Your task to perform on an android device: Open Google Maps Image 0: 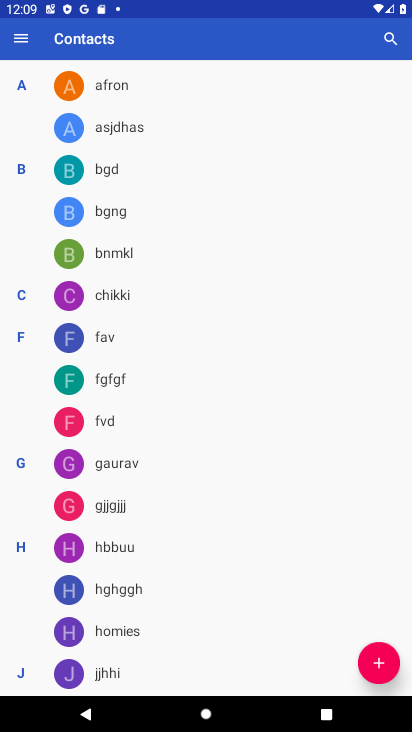
Step 0: press home button
Your task to perform on an android device: Open Google Maps Image 1: 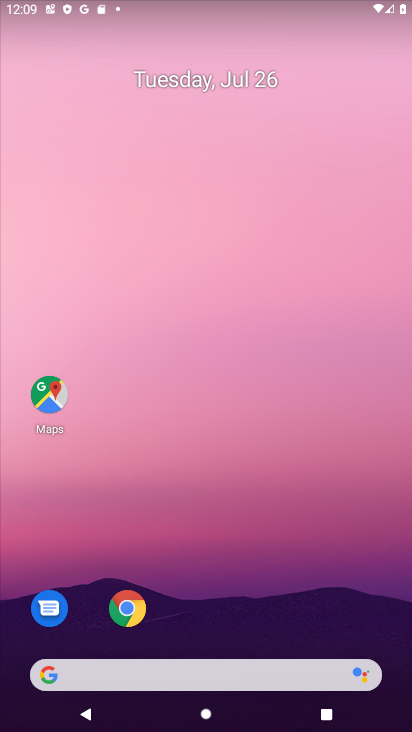
Step 1: click (54, 393)
Your task to perform on an android device: Open Google Maps Image 2: 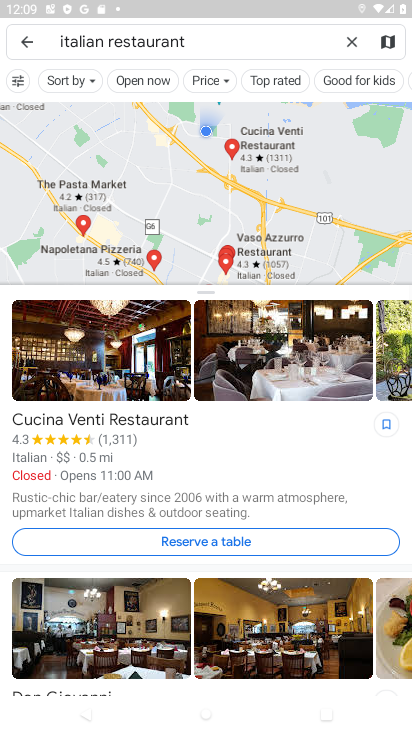
Step 2: task complete